Your task to perform on an android device: Open notification settings Image 0: 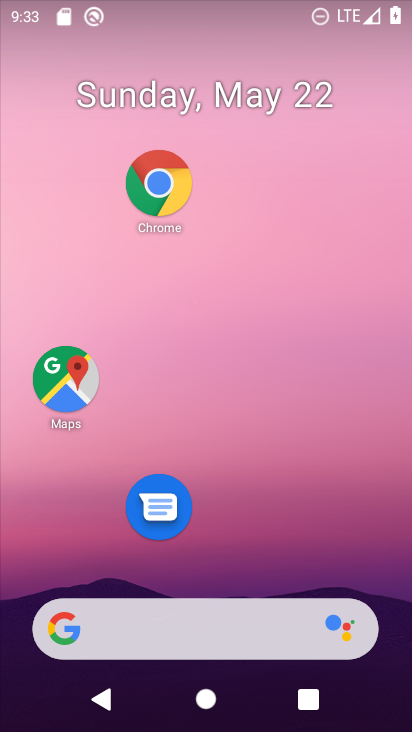
Step 0: drag from (247, 652) to (215, 18)
Your task to perform on an android device: Open notification settings Image 1: 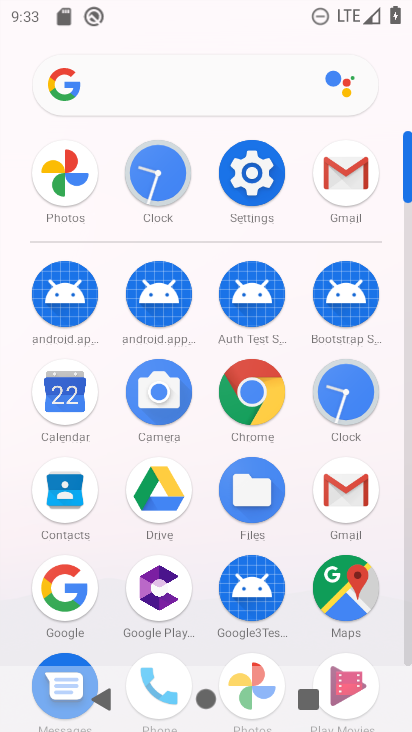
Step 1: click (280, 171)
Your task to perform on an android device: Open notification settings Image 2: 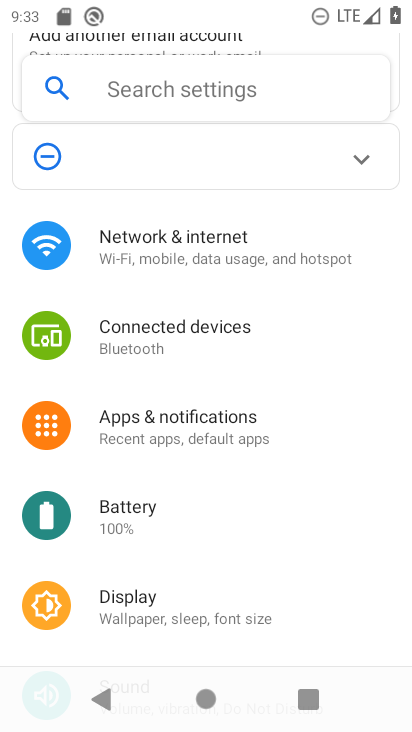
Step 2: drag from (228, 593) to (239, 220)
Your task to perform on an android device: Open notification settings Image 3: 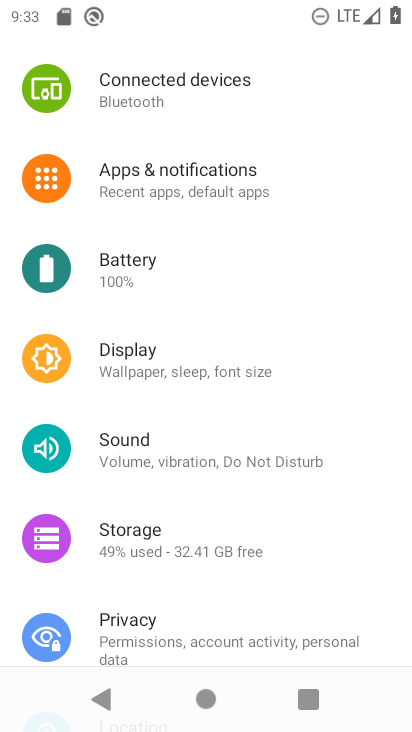
Step 3: drag from (239, 633) to (227, 196)
Your task to perform on an android device: Open notification settings Image 4: 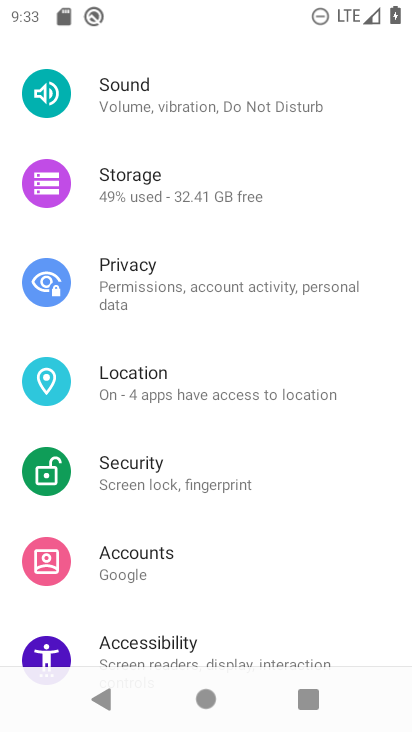
Step 4: drag from (288, 154) to (343, 650)
Your task to perform on an android device: Open notification settings Image 5: 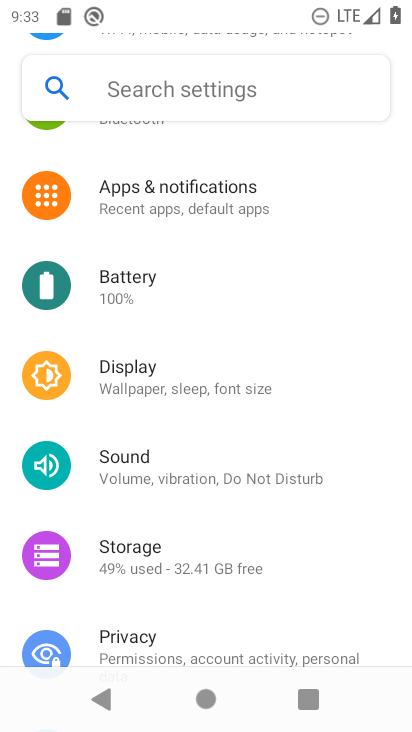
Step 5: click (201, 210)
Your task to perform on an android device: Open notification settings Image 6: 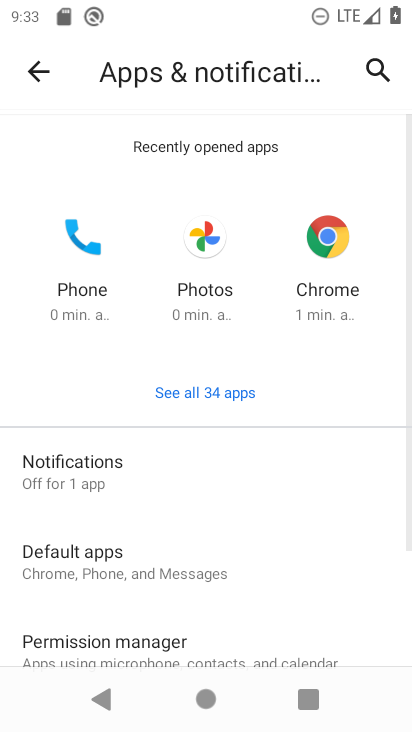
Step 6: task complete